Your task to perform on an android device: turn on sleep mode Image 0: 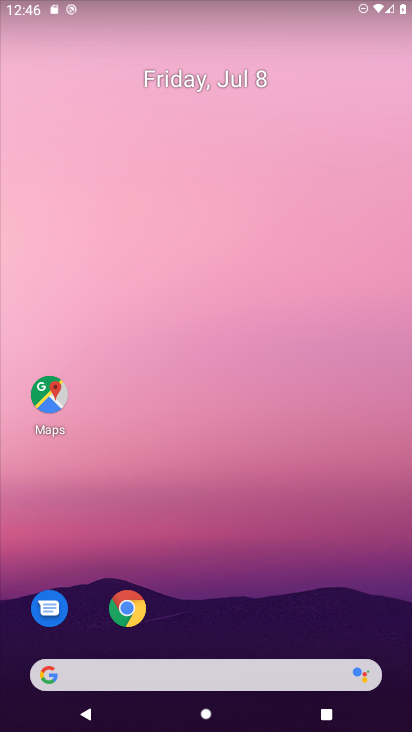
Step 0: drag from (301, 603) to (153, 56)
Your task to perform on an android device: turn on sleep mode Image 1: 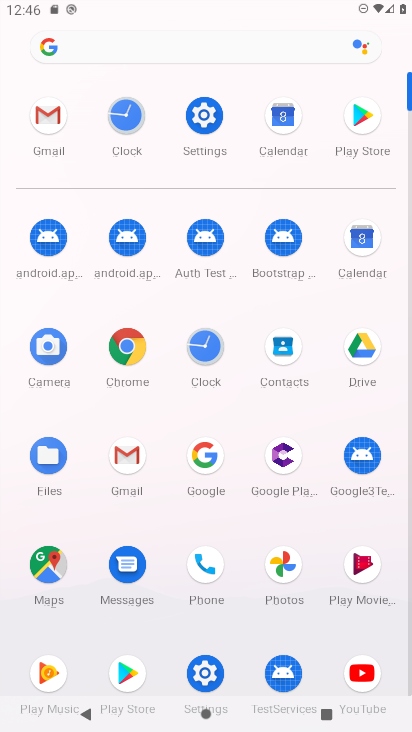
Step 1: click (201, 117)
Your task to perform on an android device: turn on sleep mode Image 2: 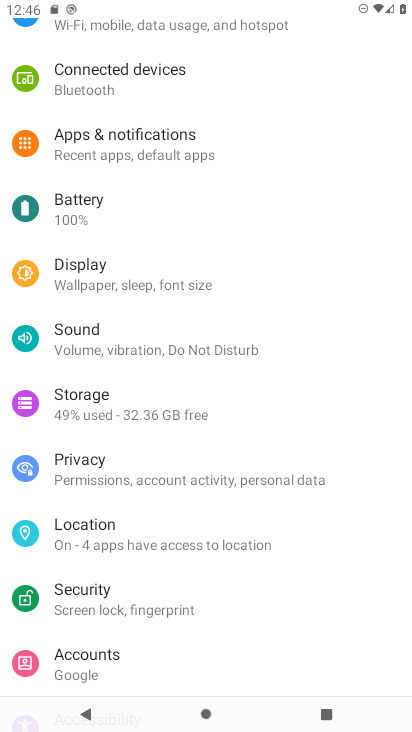
Step 2: click (155, 298)
Your task to perform on an android device: turn on sleep mode Image 3: 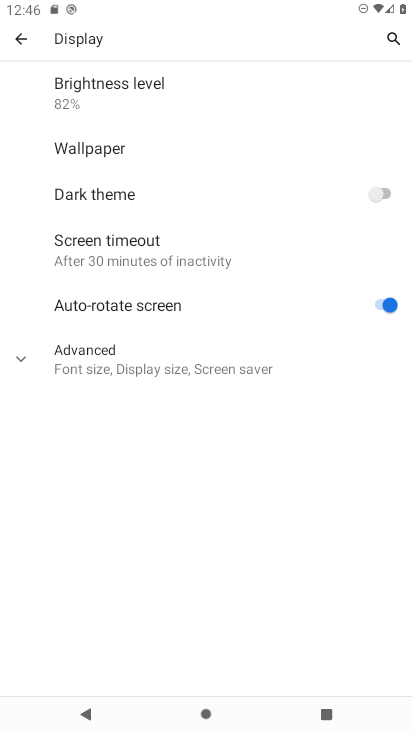
Step 3: click (195, 255)
Your task to perform on an android device: turn on sleep mode Image 4: 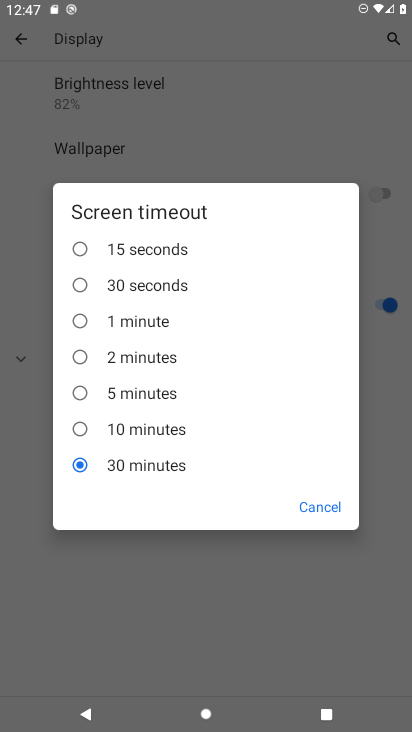
Step 4: click (135, 237)
Your task to perform on an android device: turn on sleep mode Image 5: 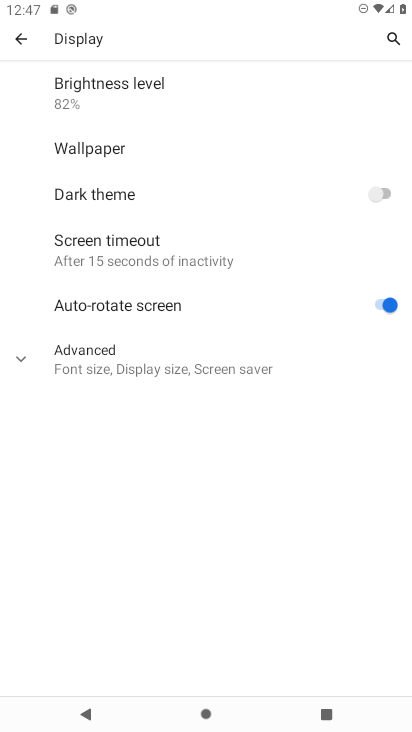
Step 5: task complete